Your task to perform on an android device: turn vacation reply on in the gmail app Image 0: 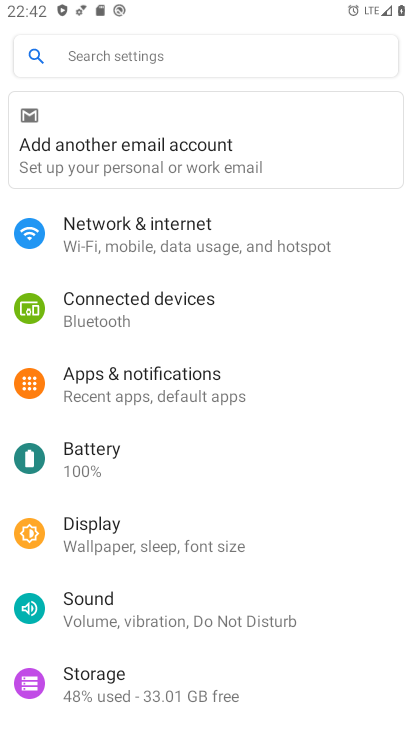
Step 0: press back button
Your task to perform on an android device: turn vacation reply on in the gmail app Image 1: 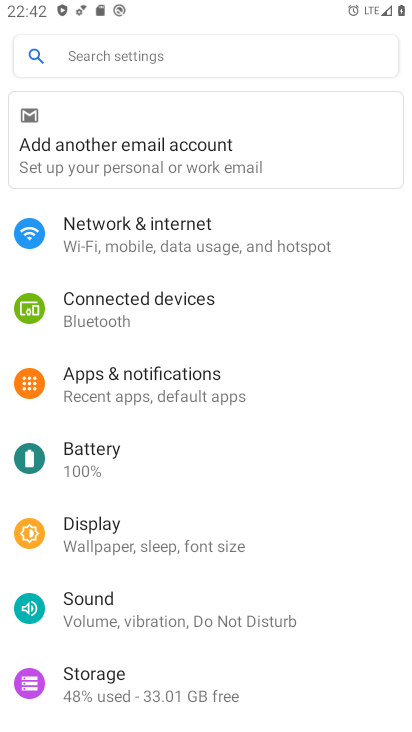
Step 1: press back button
Your task to perform on an android device: turn vacation reply on in the gmail app Image 2: 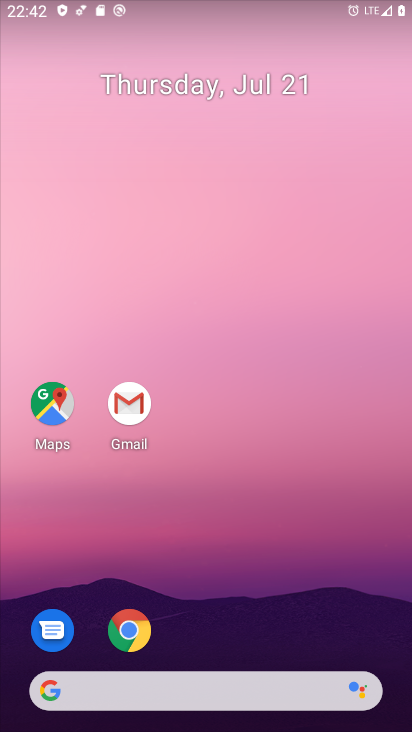
Step 2: drag from (214, 647) to (158, 154)
Your task to perform on an android device: turn vacation reply on in the gmail app Image 3: 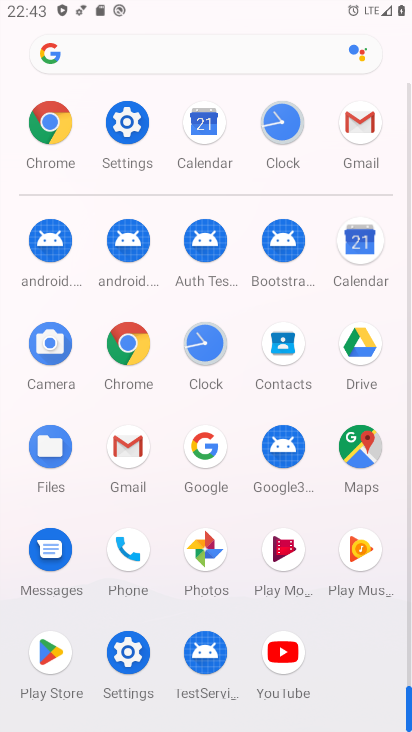
Step 3: click (126, 454)
Your task to perform on an android device: turn vacation reply on in the gmail app Image 4: 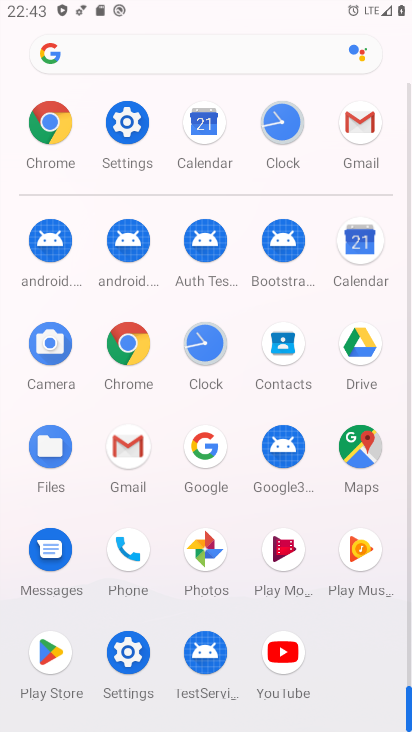
Step 4: click (133, 447)
Your task to perform on an android device: turn vacation reply on in the gmail app Image 5: 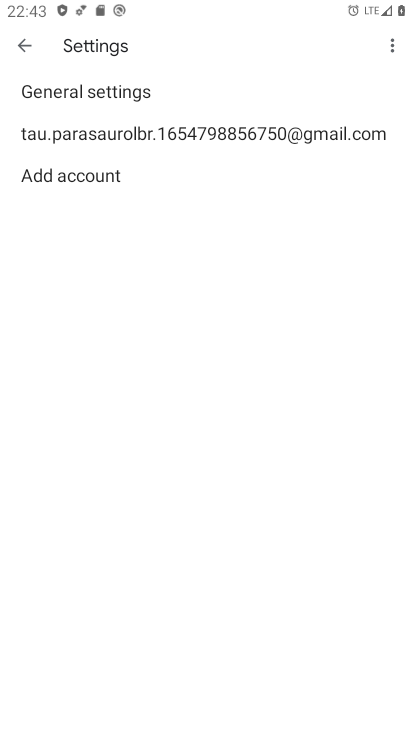
Step 5: click (101, 130)
Your task to perform on an android device: turn vacation reply on in the gmail app Image 6: 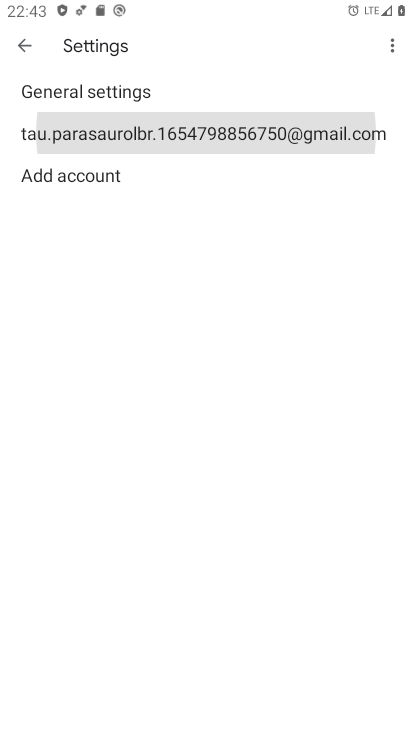
Step 6: click (100, 130)
Your task to perform on an android device: turn vacation reply on in the gmail app Image 7: 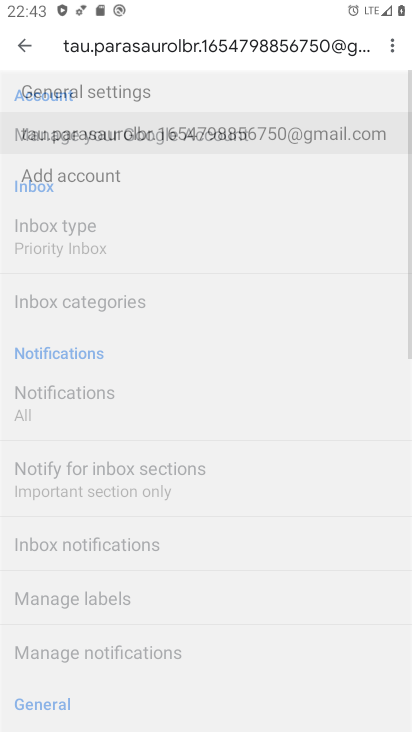
Step 7: click (101, 131)
Your task to perform on an android device: turn vacation reply on in the gmail app Image 8: 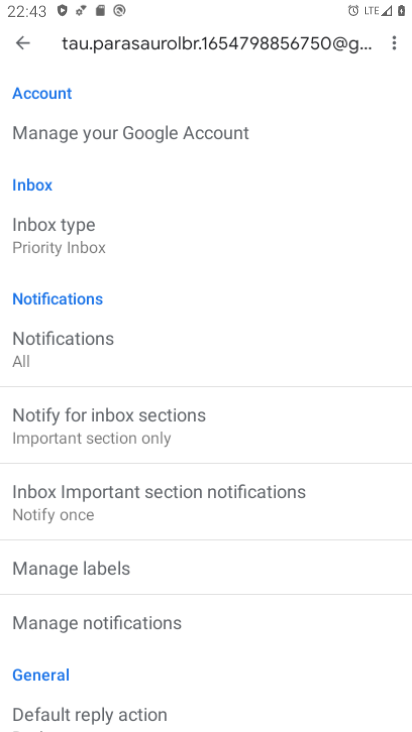
Step 8: drag from (109, 577) to (99, 118)
Your task to perform on an android device: turn vacation reply on in the gmail app Image 9: 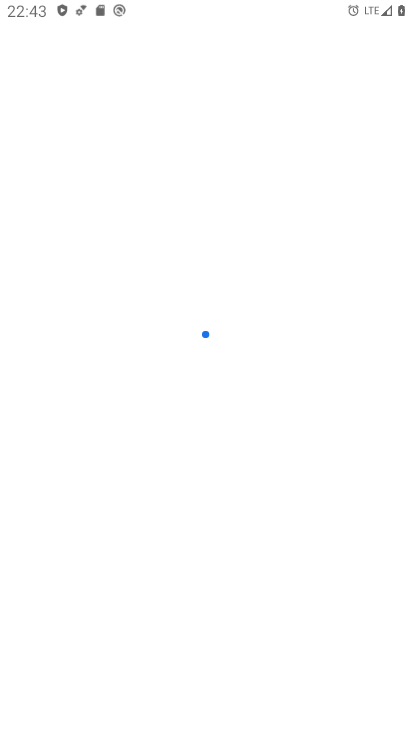
Step 9: drag from (254, 511) to (249, 95)
Your task to perform on an android device: turn vacation reply on in the gmail app Image 10: 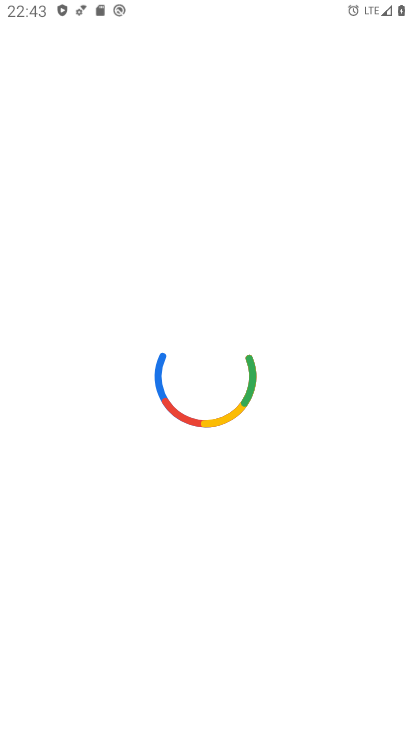
Step 10: press back button
Your task to perform on an android device: turn vacation reply on in the gmail app Image 11: 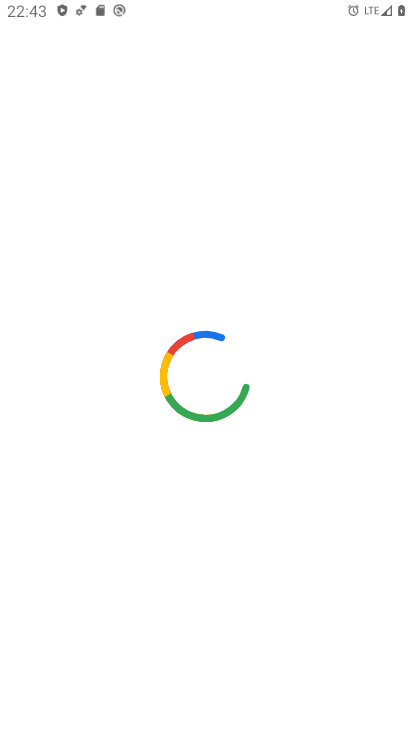
Step 11: press back button
Your task to perform on an android device: turn vacation reply on in the gmail app Image 12: 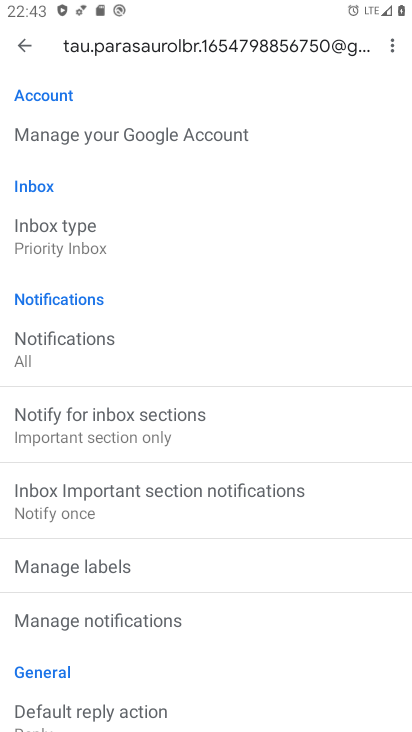
Step 12: drag from (121, 572) to (87, 240)
Your task to perform on an android device: turn vacation reply on in the gmail app Image 13: 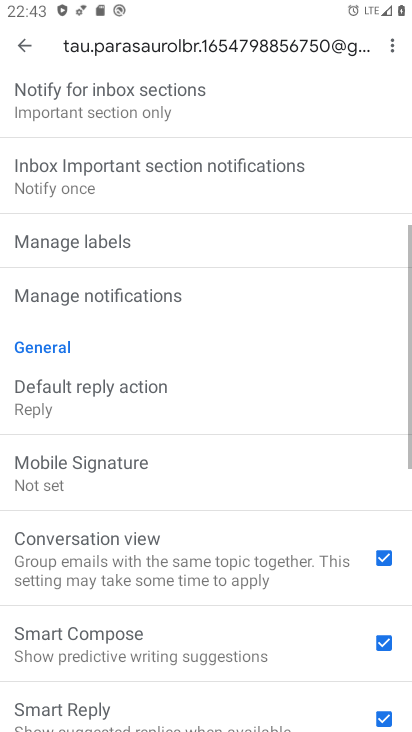
Step 13: drag from (77, 595) to (118, 297)
Your task to perform on an android device: turn vacation reply on in the gmail app Image 14: 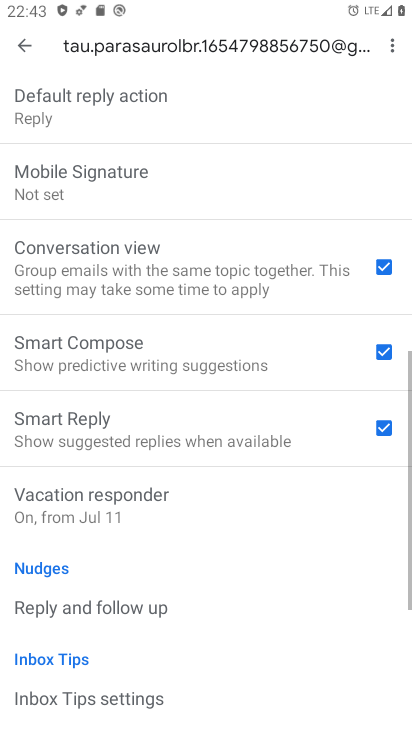
Step 14: click (95, 494)
Your task to perform on an android device: turn vacation reply on in the gmail app Image 15: 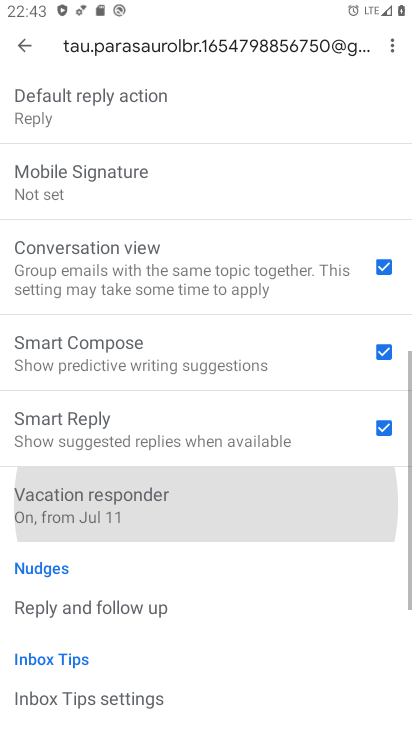
Step 15: click (96, 495)
Your task to perform on an android device: turn vacation reply on in the gmail app Image 16: 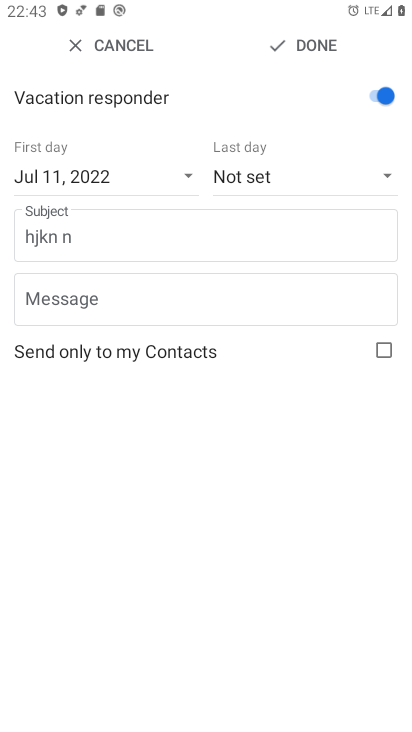
Step 16: task complete